Your task to perform on an android device: see creations saved in the google photos Image 0: 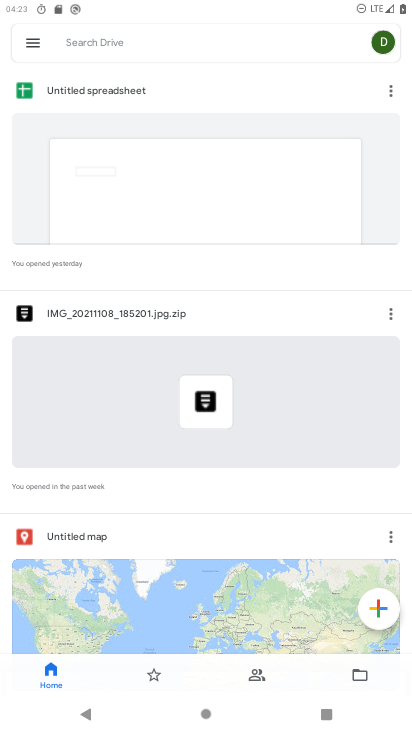
Step 0: press home button
Your task to perform on an android device: see creations saved in the google photos Image 1: 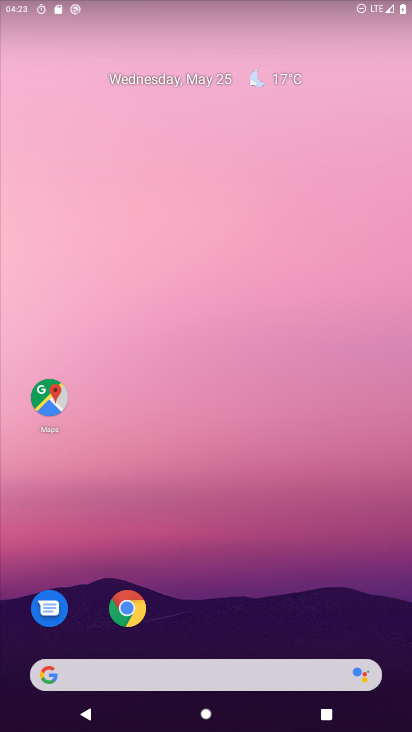
Step 1: drag from (311, 574) to (331, 138)
Your task to perform on an android device: see creations saved in the google photos Image 2: 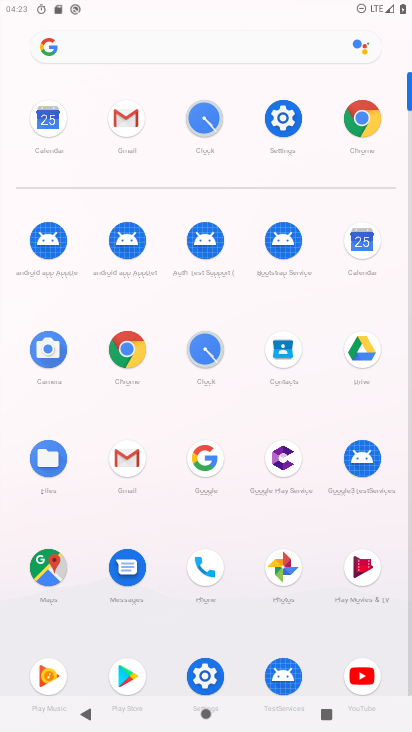
Step 2: click (289, 565)
Your task to perform on an android device: see creations saved in the google photos Image 3: 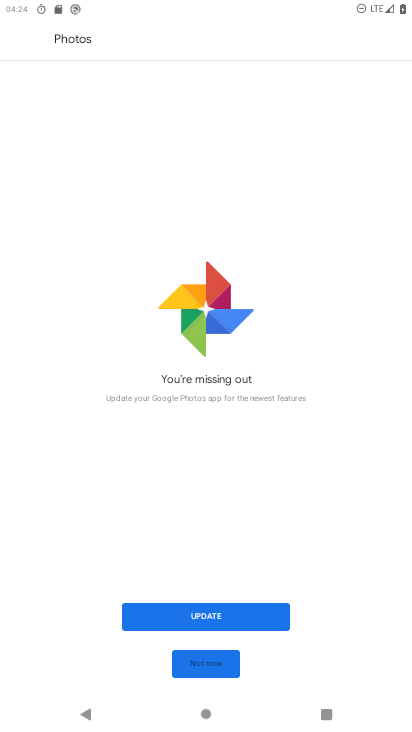
Step 3: click (227, 618)
Your task to perform on an android device: see creations saved in the google photos Image 4: 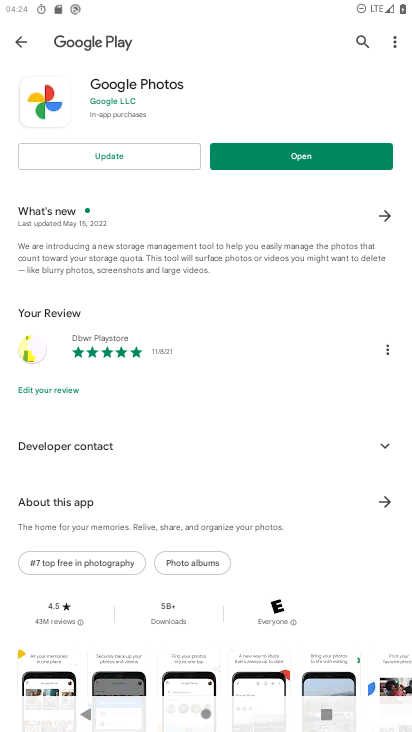
Step 4: click (116, 156)
Your task to perform on an android device: see creations saved in the google photos Image 5: 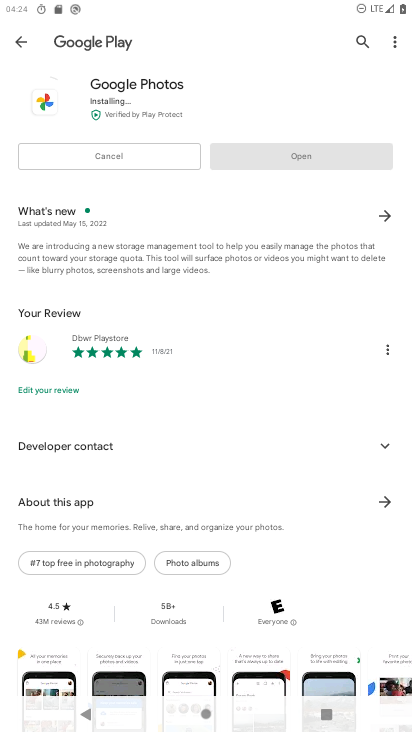
Step 5: task complete